Your task to perform on an android device: See recent photos Image 0: 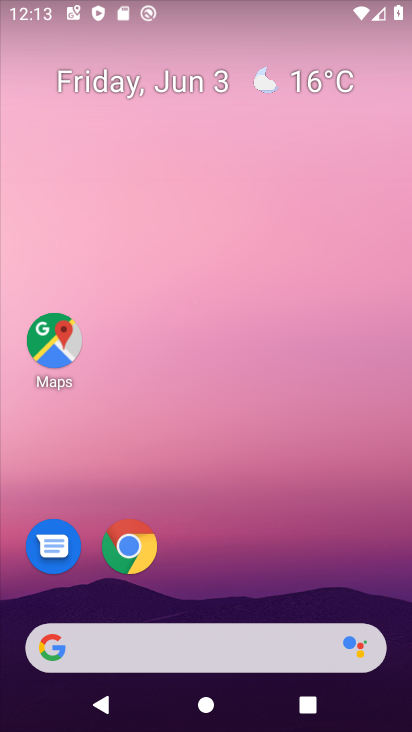
Step 0: drag from (253, 505) to (127, 80)
Your task to perform on an android device: See recent photos Image 1: 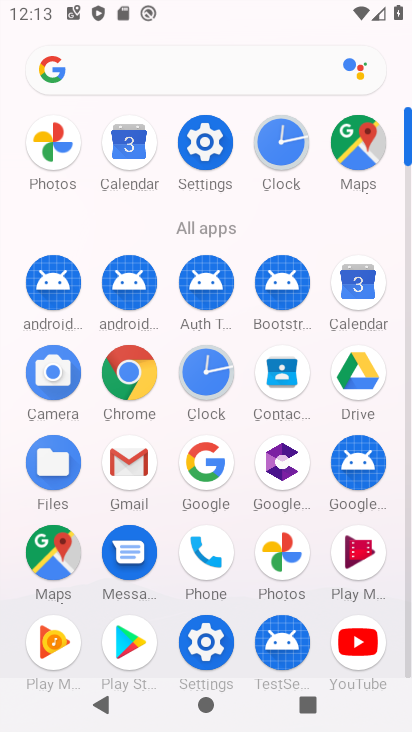
Step 1: click (51, 147)
Your task to perform on an android device: See recent photos Image 2: 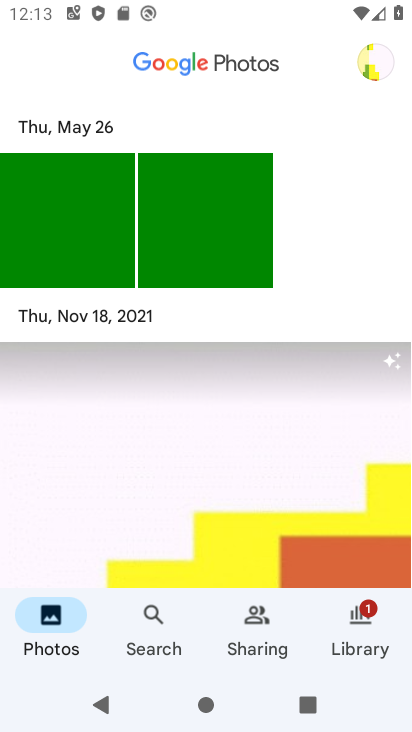
Step 2: drag from (238, 391) to (206, 183)
Your task to perform on an android device: See recent photos Image 3: 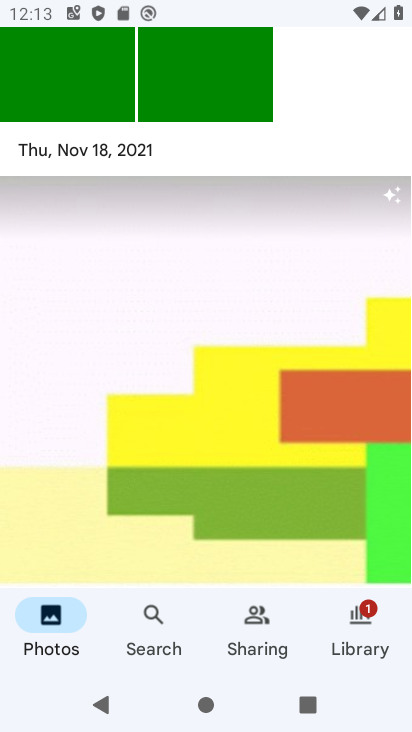
Step 3: drag from (216, 431) to (155, 170)
Your task to perform on an android device: See recent photos Image 4: 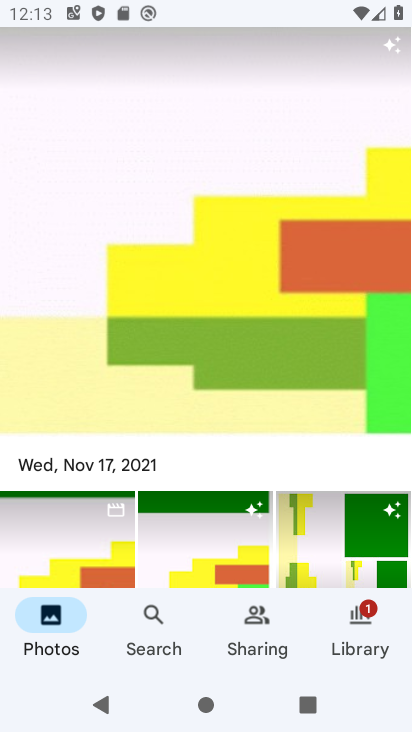
Step 4: click (184, 73)
Your task to perform on an android device: See recent photos Image 5: 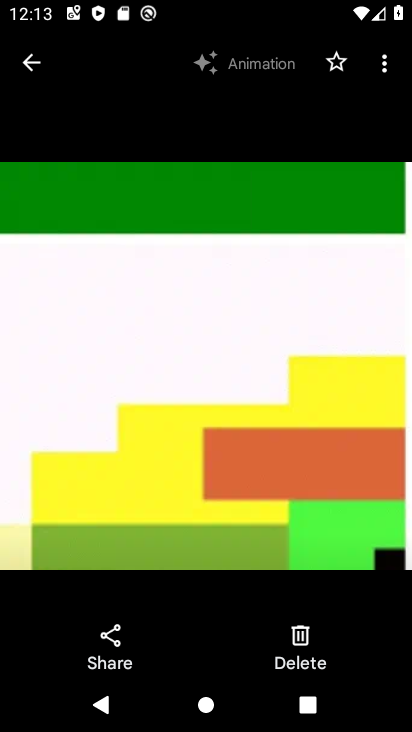
Step 5: task complete